Your task to perform on an android device: turn off smart reply in the gmail app Image 0: 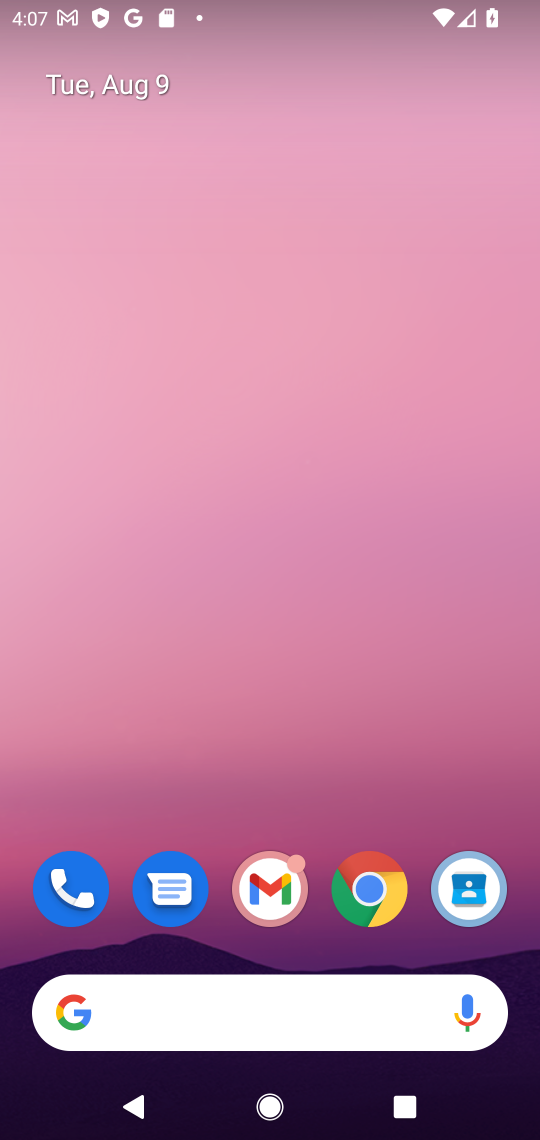
Step 0: click (267, 875)
Your task to perform on an android device: turn off smart reply in the gmail app Image 1: 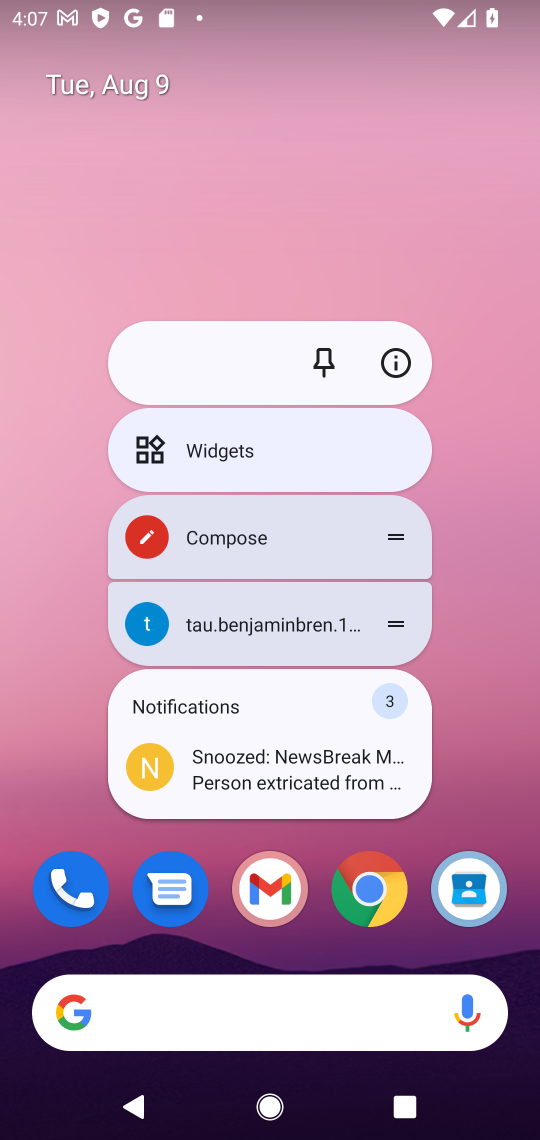
Step 1: click (267, 875)
Your task to perform on an android device: turn off smart reply in the gmail app Image 2: 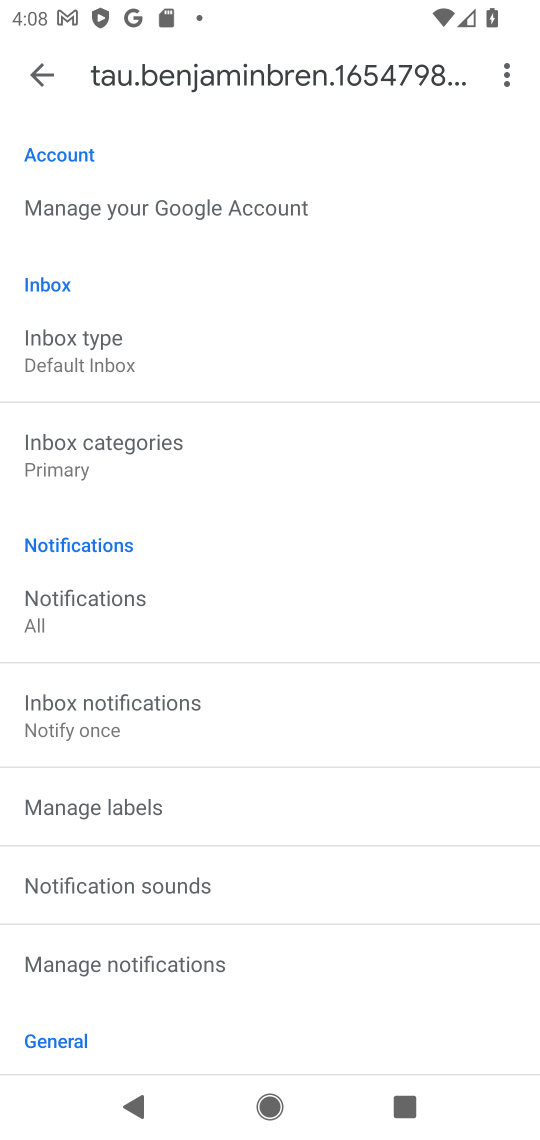
Step 2: drag from (318, 857) to (332, 118)
Your task to perform on an android device: turn off smart reply in the gmail app Image 3: 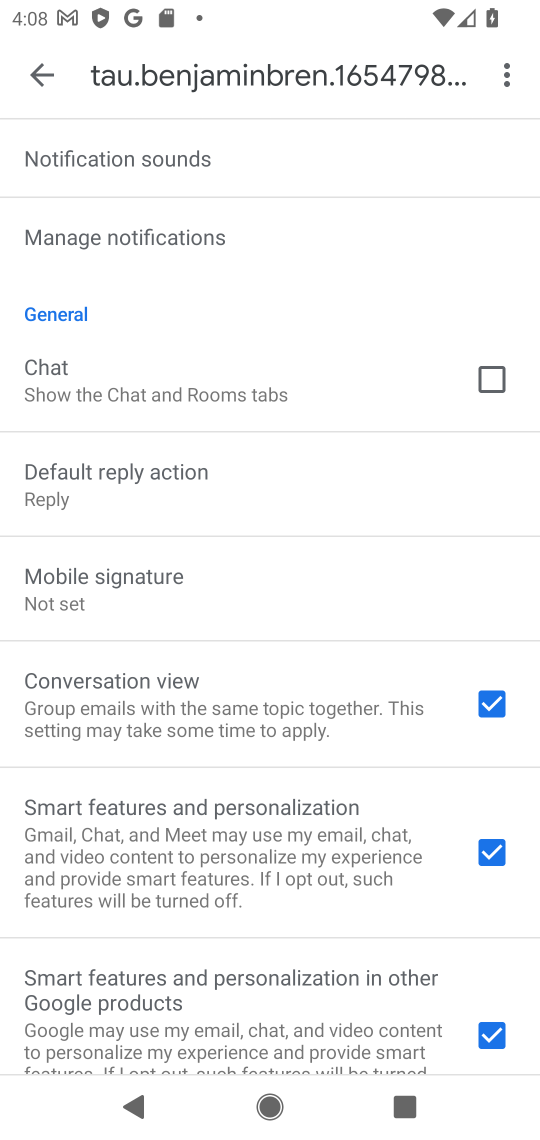
Step 3: drag from (312, 842) to (306, 248)
Your task to perform on an android device: turn off smart reply in the gmail app Image 4: 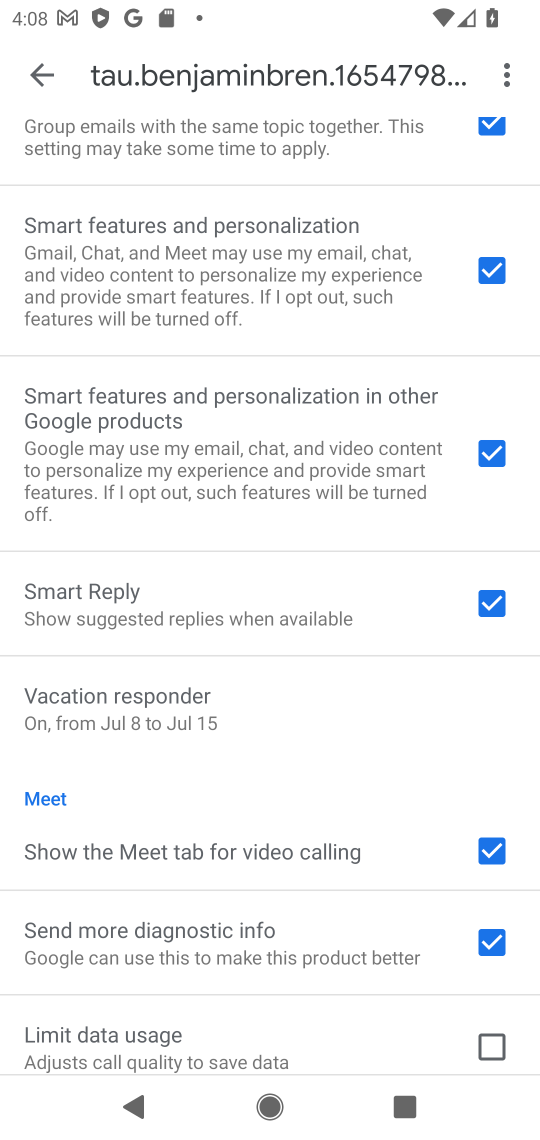
Step 4: click (490, 600)
Your task to perform on an android device: turn off smart reply in the gmail app Image 5: 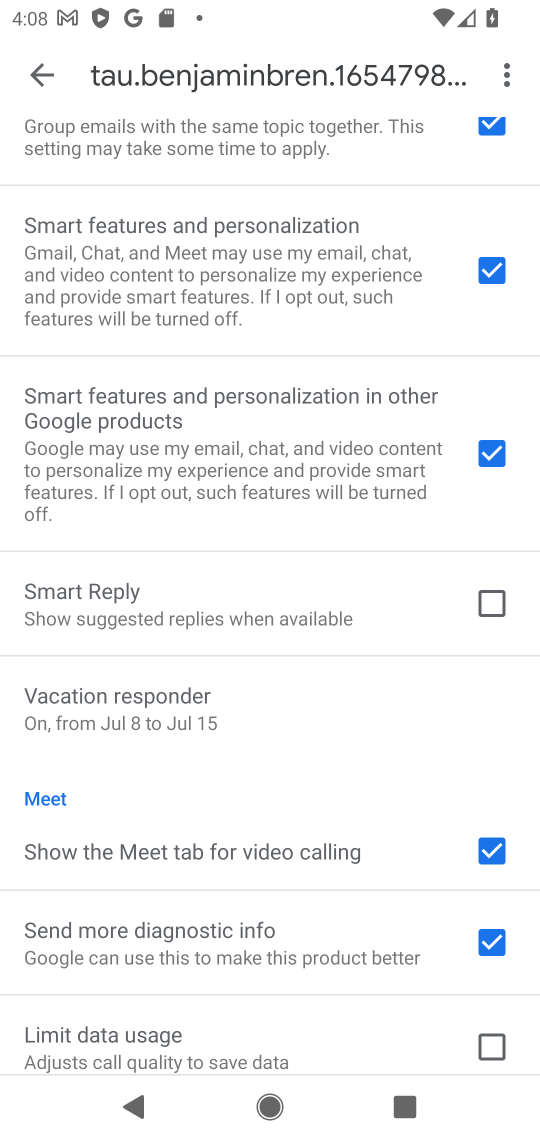
Step 5: task complete